Your task to perform on an android device: Search for sushi restaurants on Maps Image 0: 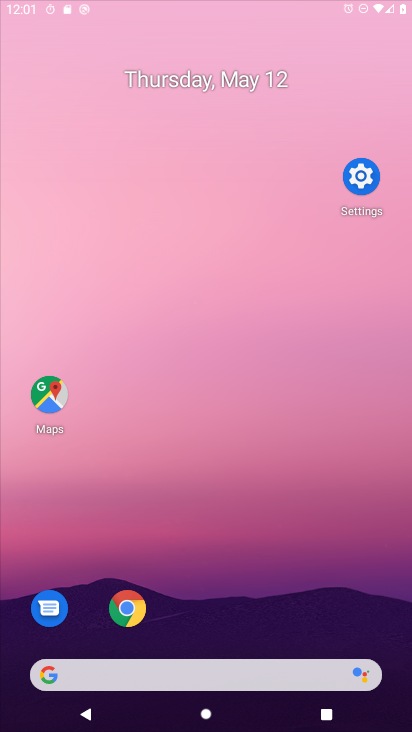
Step 0: drag from (115, 346) to (14, 35)
Your task to perform on an android device: Search for sushi restaurants on Maps Image 1: 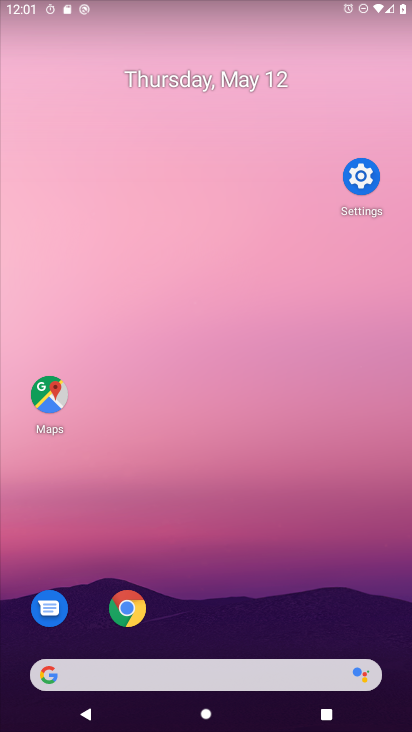
Step 1: drag from (270, 579) to (44, 18)
Your task to perform on an android device: Search for sushi restaurants on Maps Image 2: 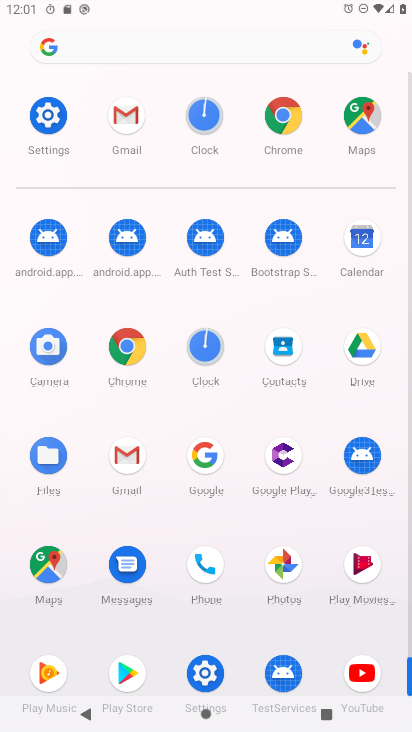
Step 2: click (369, 113)
Your task to perform on an android device: Search for sushi restaurants on Maps Image 3: 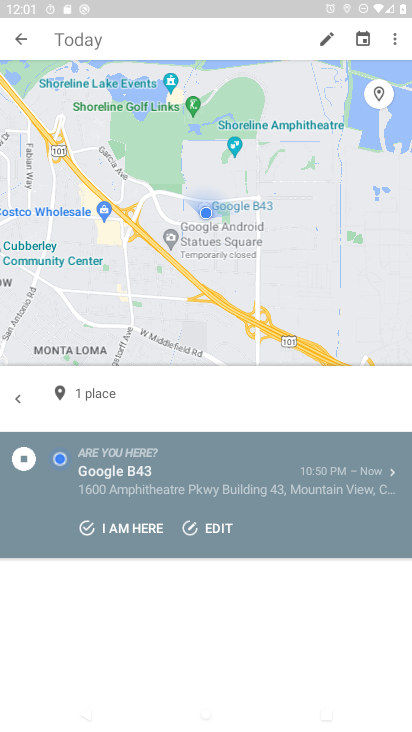
Step 3: click (53, 35)
Your task to perform on an android device: Search for sushi restaurants on Maps Image 4: 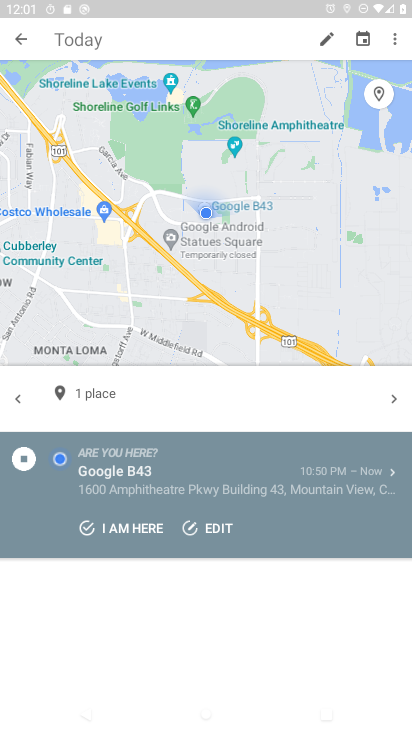
Step 4: click (58, 44)
Your task to perform on an android device: Search for sushi restaurants on Maps Image 5: 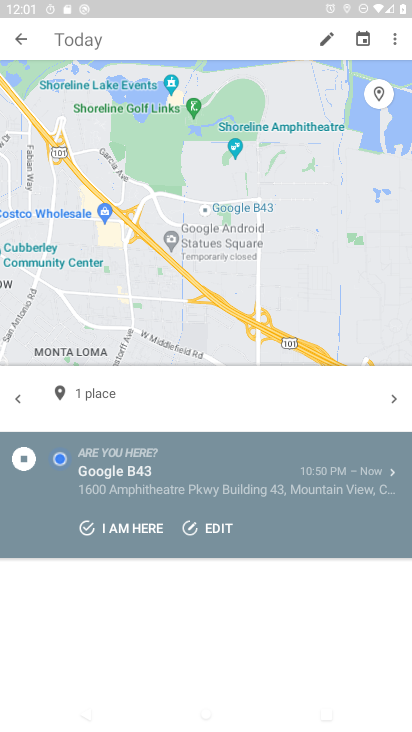
Step 5: click (59, 42)
Your task to perform on an android device: Search for sushi restaurants on Maps Image 6: 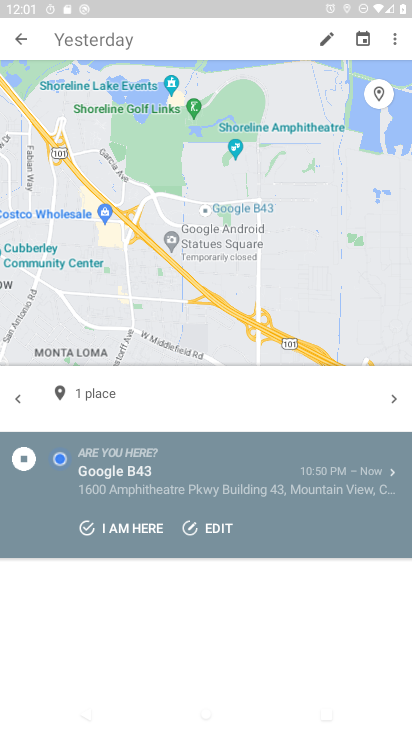
Step 6: click (59, 42)
Your task to perform on an android device: Search for sushi restaurants on Maps Image 7: 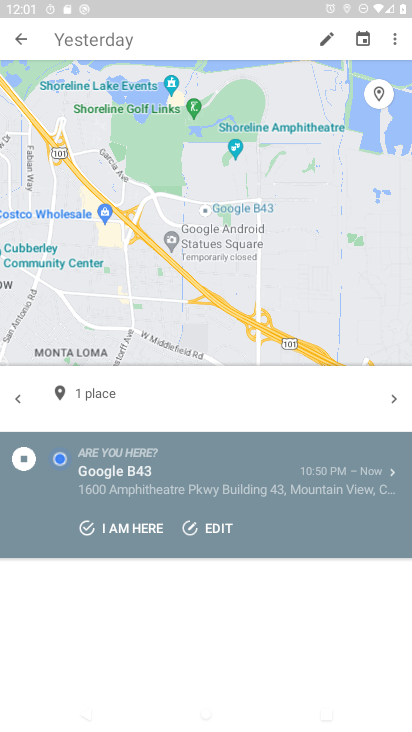
Step 7: click (17, 36)
Your task to perform on an android device: Search for sushi restaurants on Maps Image 8: 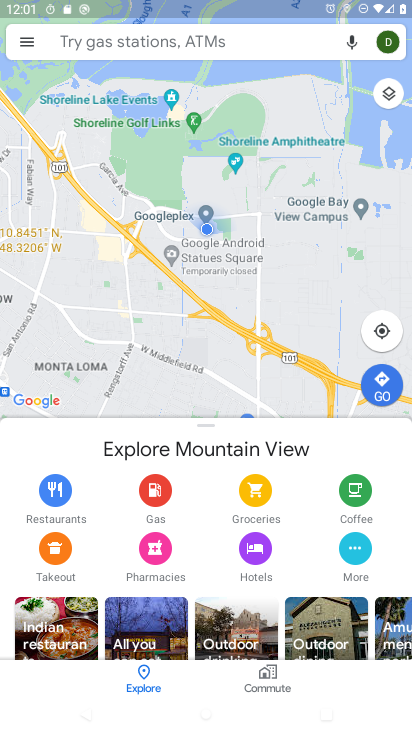
Step 8: click (81, 38)
Your task to perform on an android device: Search for sushi restaurants on Maps Image 9: 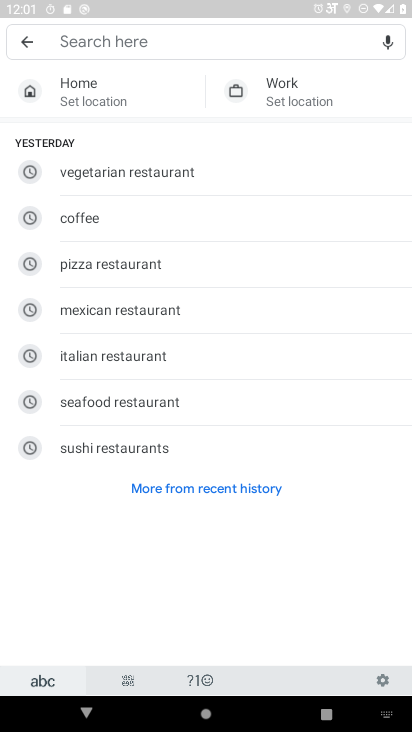
Step 9: click (102, 445)
Your task to perform on an android device: Search for sushi restaurants on Maps Image 10: 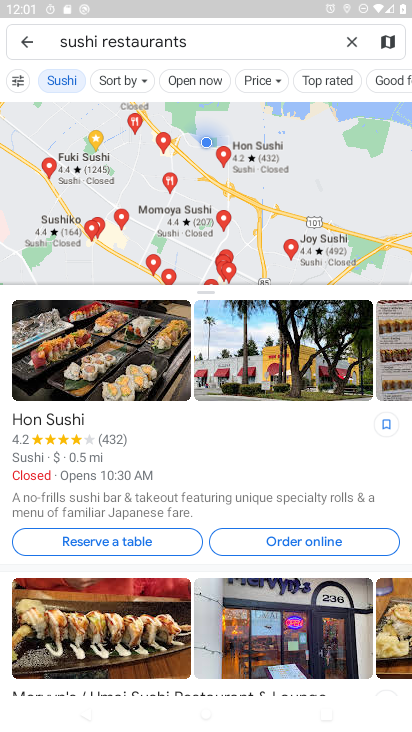
Step 10: task complete